Your task to perform on an android device: empty trash in google photos Image 0: 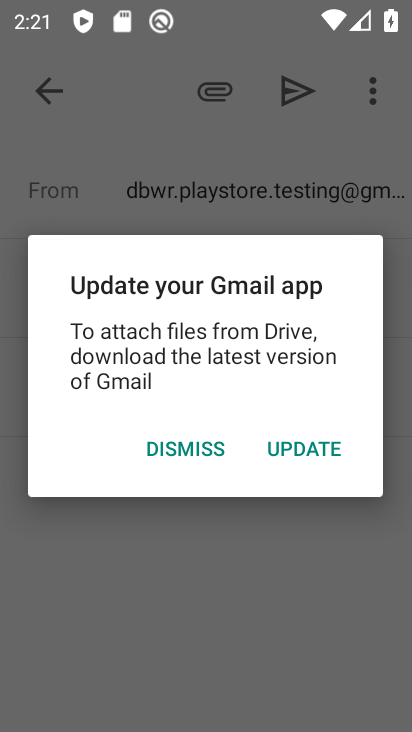
Step 0: press home button
Your task to perform on an android device: empty trash in google photos Image 1: 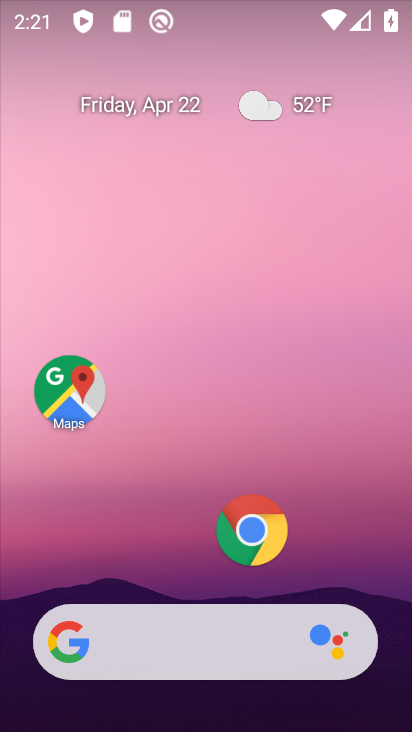
Step 1: drag from (186, 616) to (232, 292)
Your task to perform on an android device: empty trash in google photos Image 2: 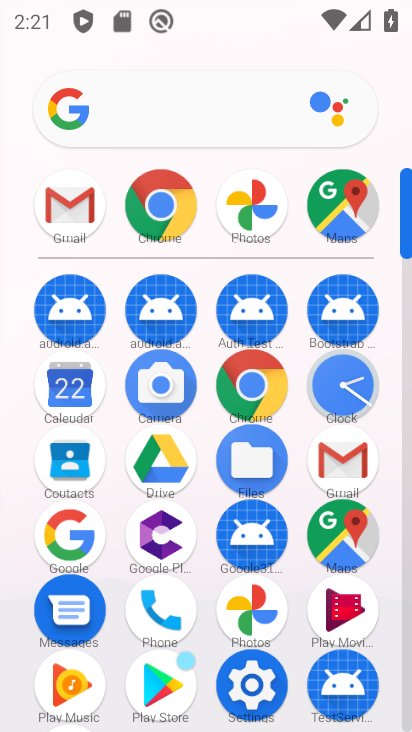
Step 2: click (243, 594)
Your task to perform on an android device: empty trash in google photos Image 3: 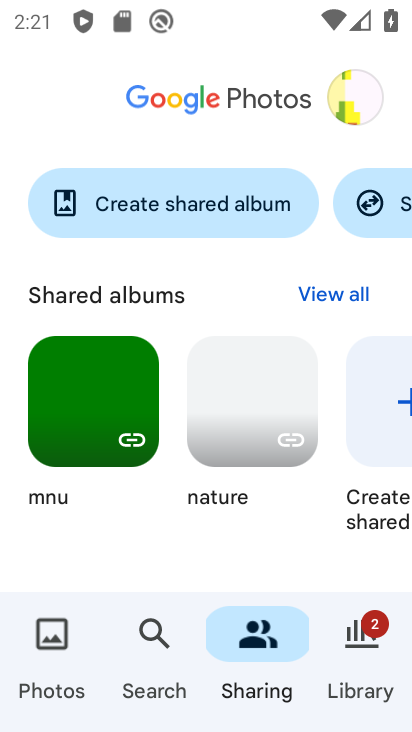
Step 3: click (340, 645)
Your task to perform on an android device: empty trash in google photos Image 4: 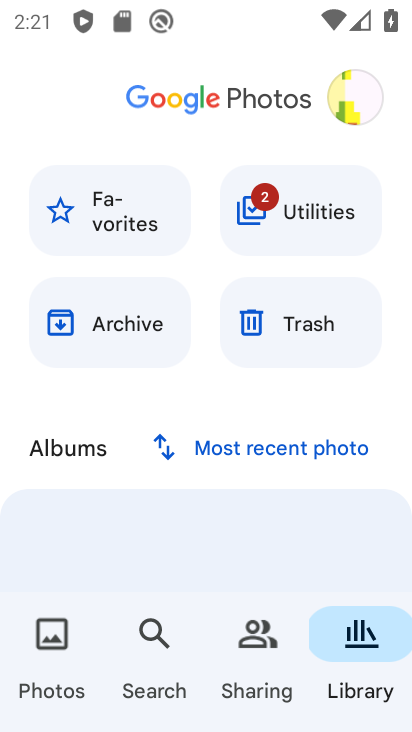
Step 4: click (291, 334)
Your task to perform on an android device: empty trash in google photos Image 5: 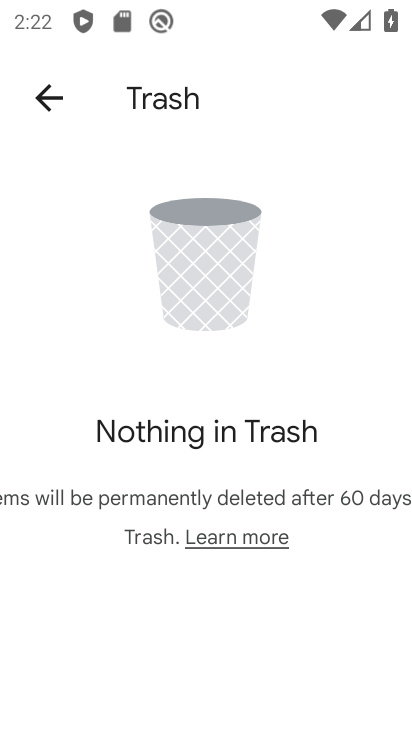
Step 5: task complete